Your task to perform on an android device: manage bookmarks in the chrome app Image 0: 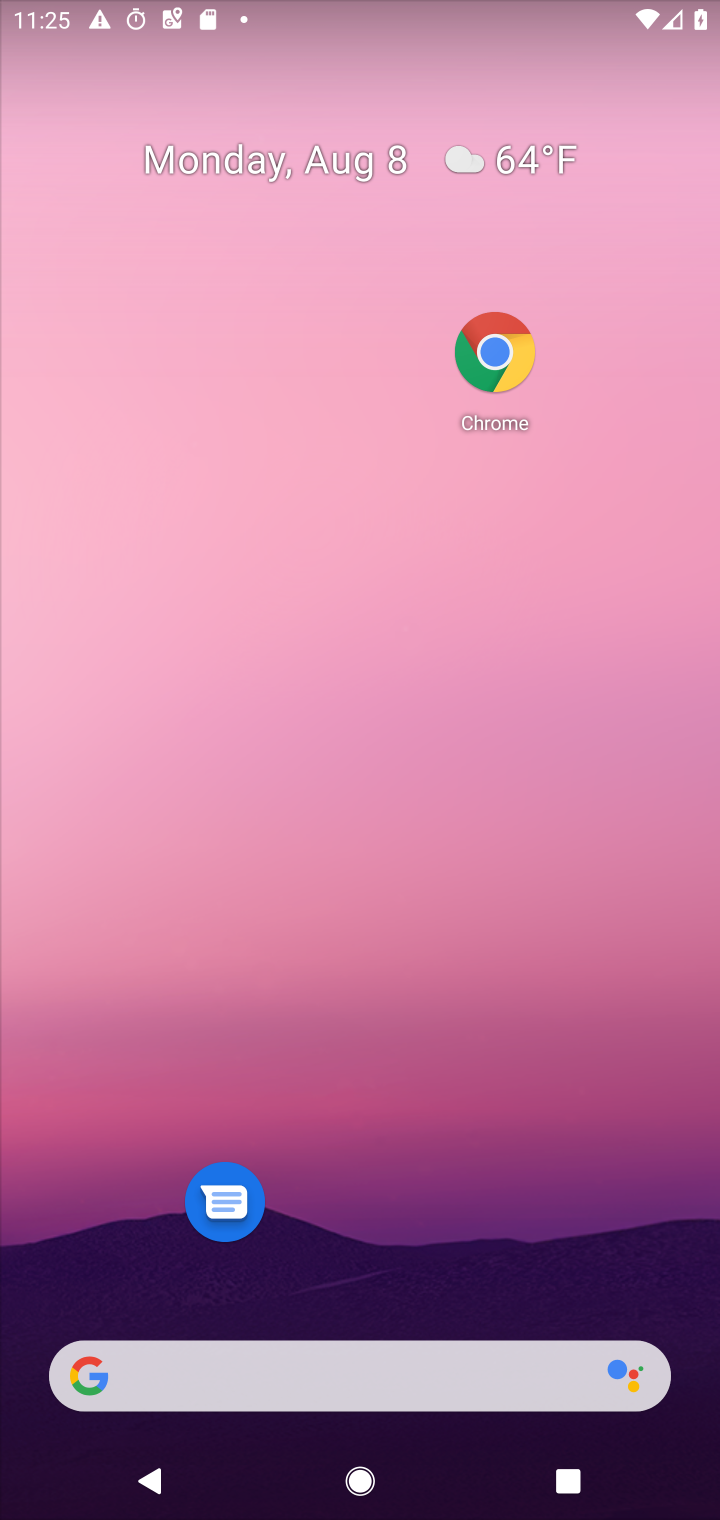
Step 0: press home button
Your task to perform on an android device: manage bookmarks in the chrome app Image 1: 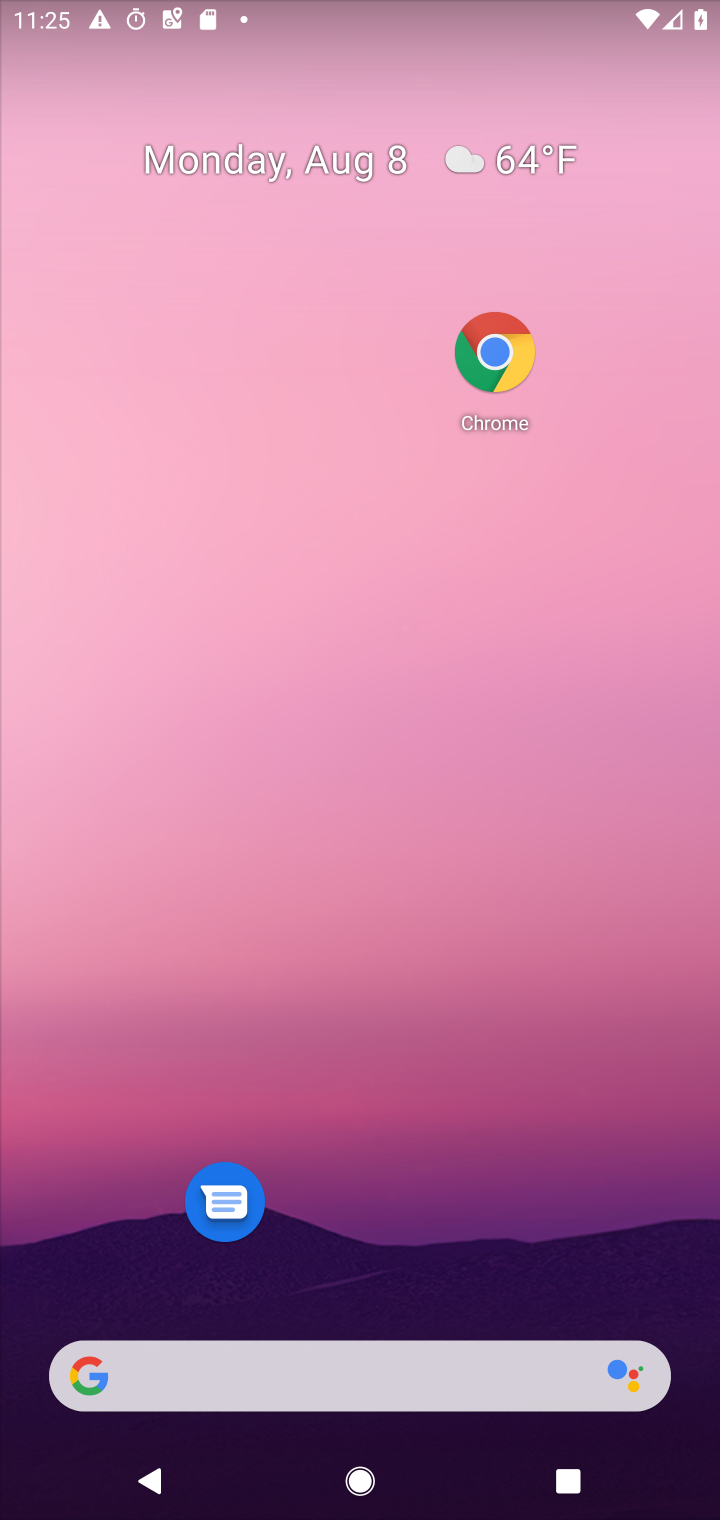
Step 1: drag from (437, 769) to (417, 336)
Your task to perform on an android device: manage bookmarks in the chrome app Image 2: 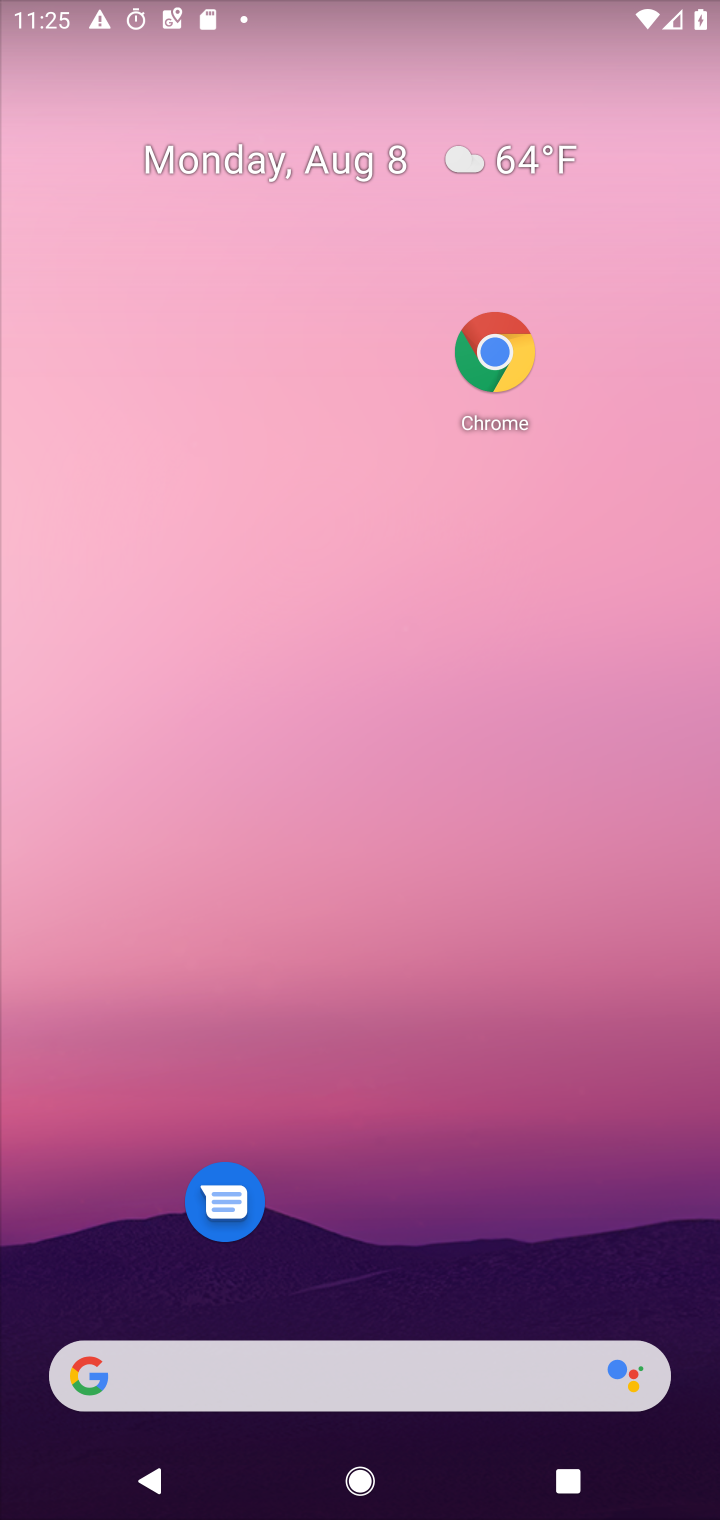
Step 2: click (505, 348)
Your task to perform on an android device: manage bookmarks in the chrome app Image 3: 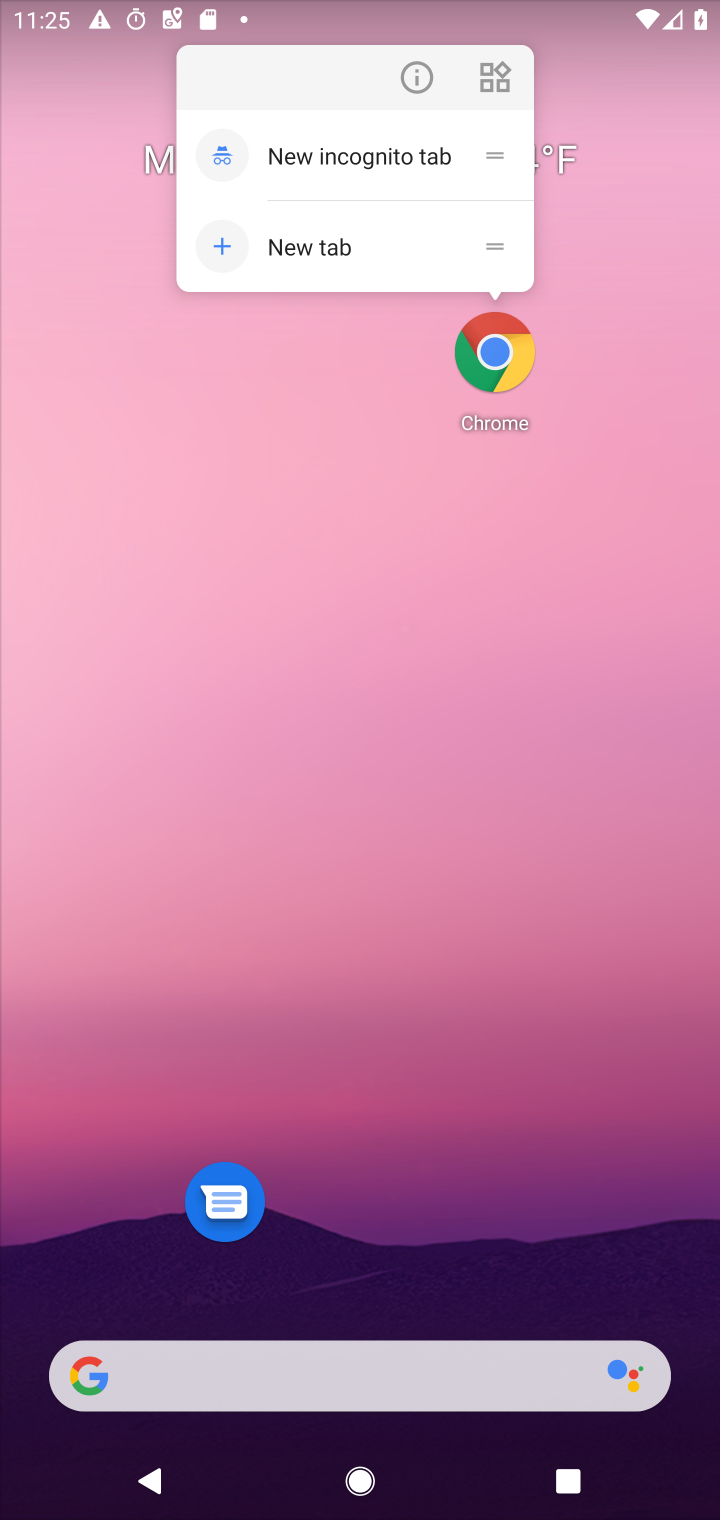
Step 3: click (509, 385)
Your task to perform on an android device: manage bookmarks in the chrome app Image 4: 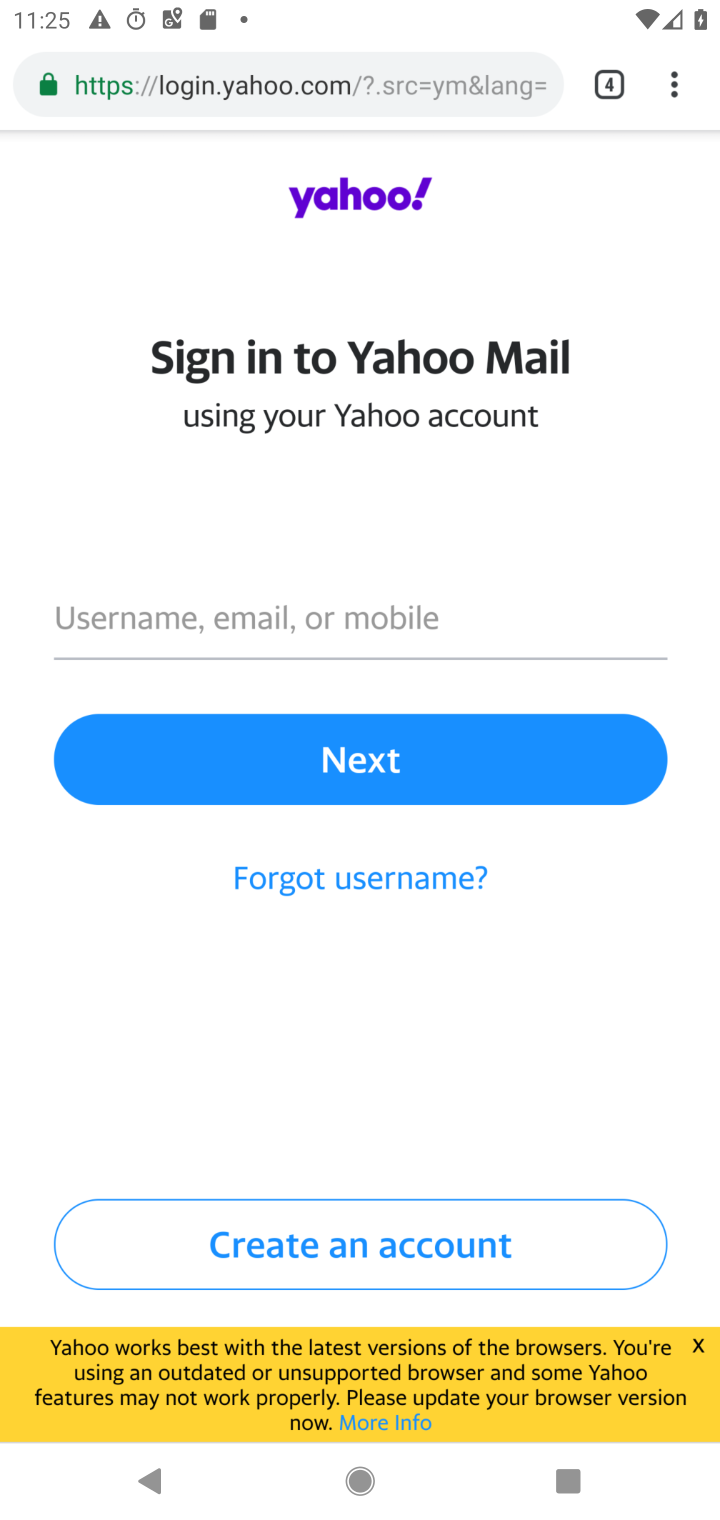
Step 4: click (503, 376)
Your task to perform on an android device: manage bookmarks in the chrome app Image 5: 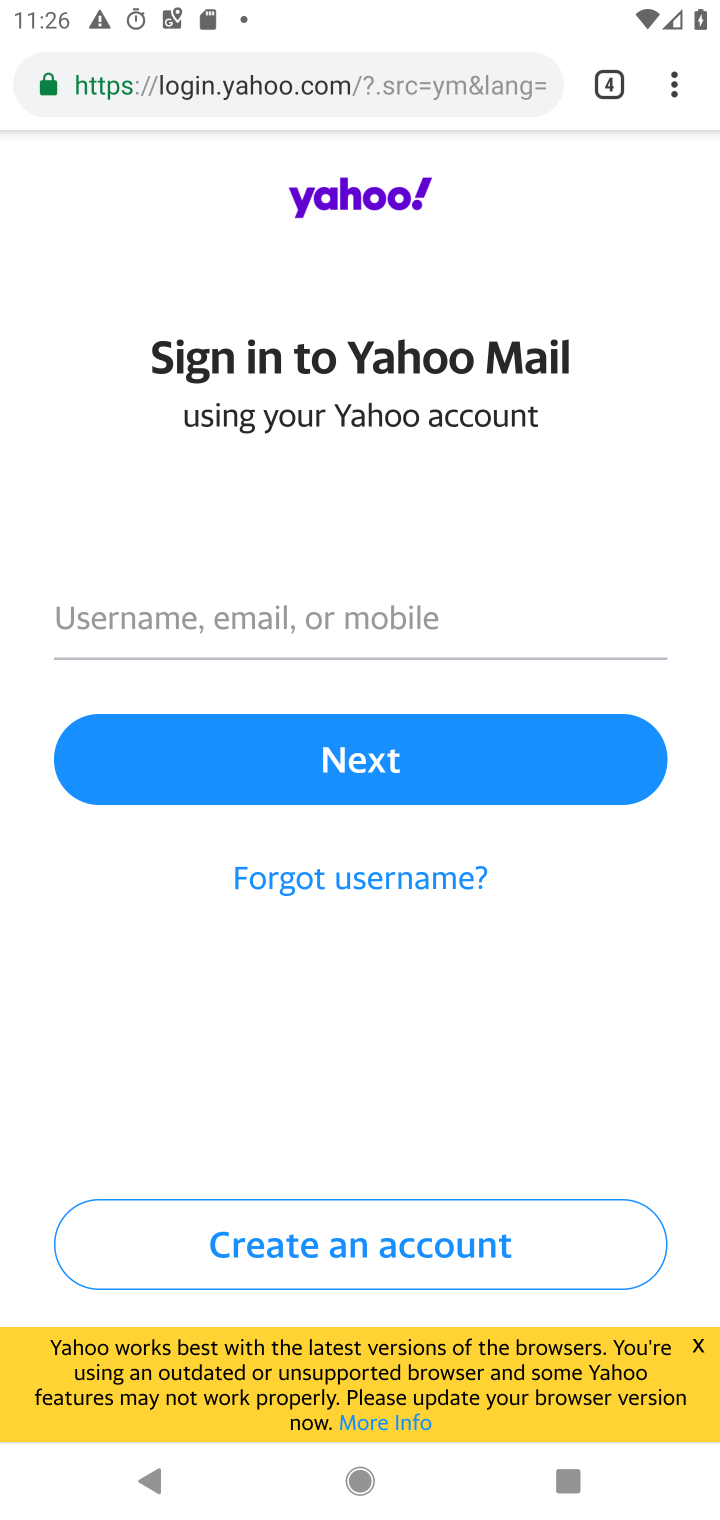
Step 5: click (666, 81)
Your task to perform on an android device: manage bookmarks in the chrome app Image 6: 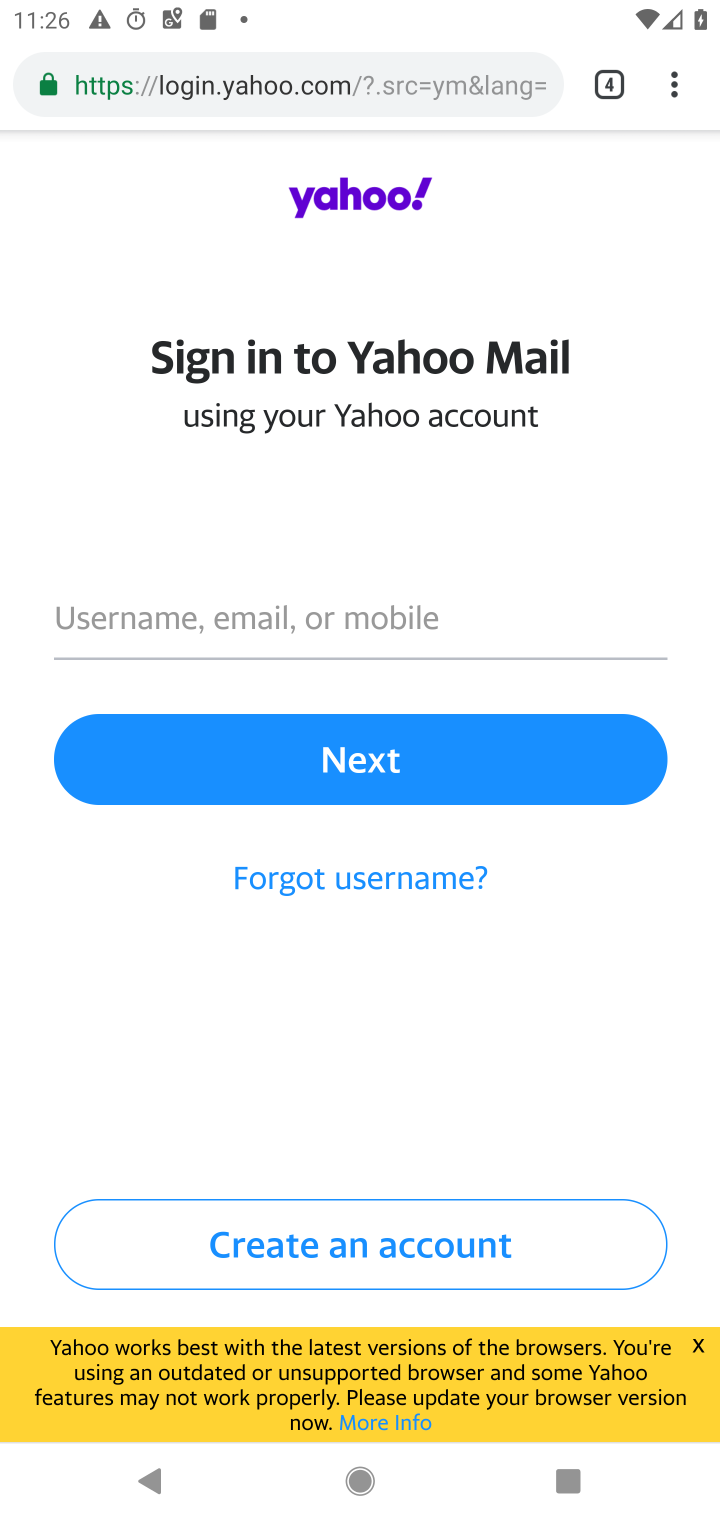
Step 6: click (673, 88)
Your task to perform on an android device: manage bookmarks in the chrome app Image 7: 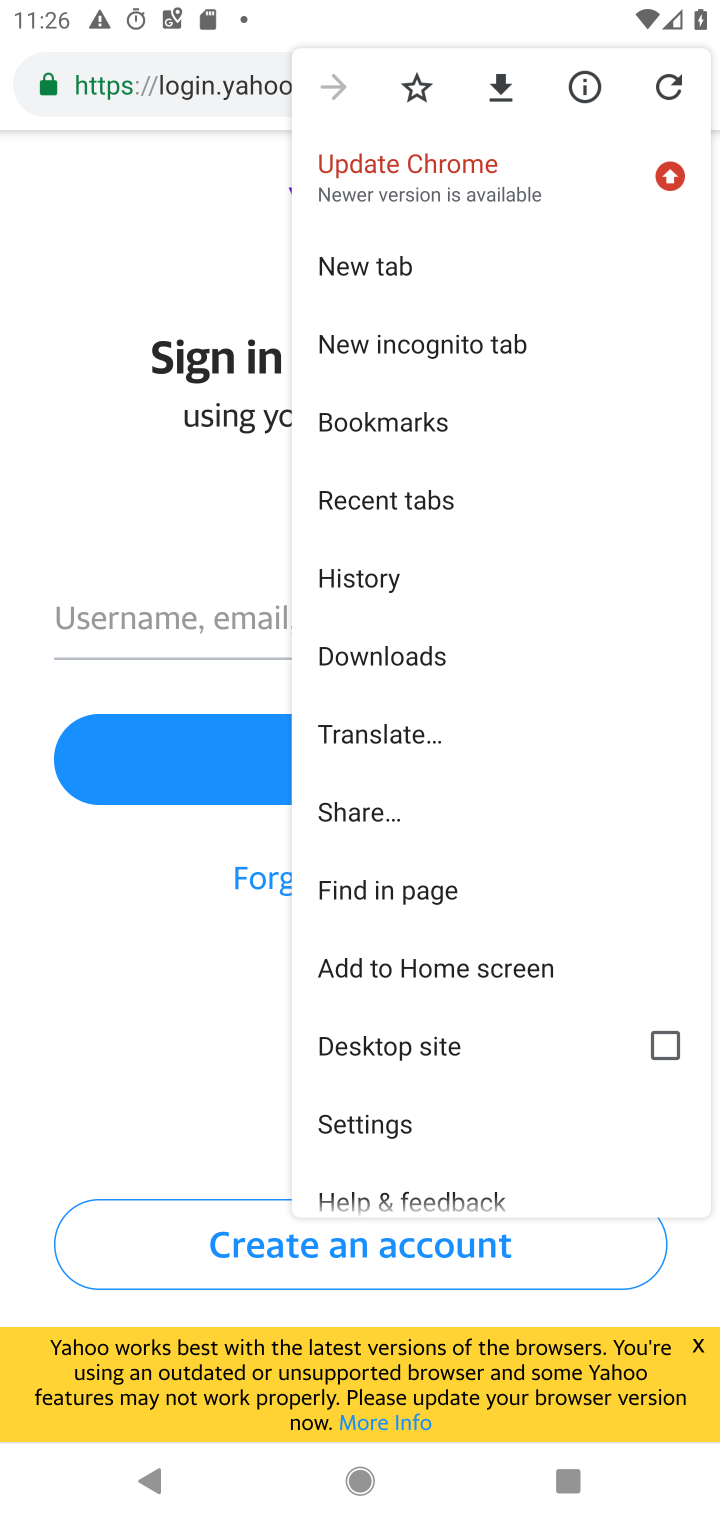
Step 7: click (375, 437)
Your task to perform on an android device: manage bookmarks in the chrome app Image 8: 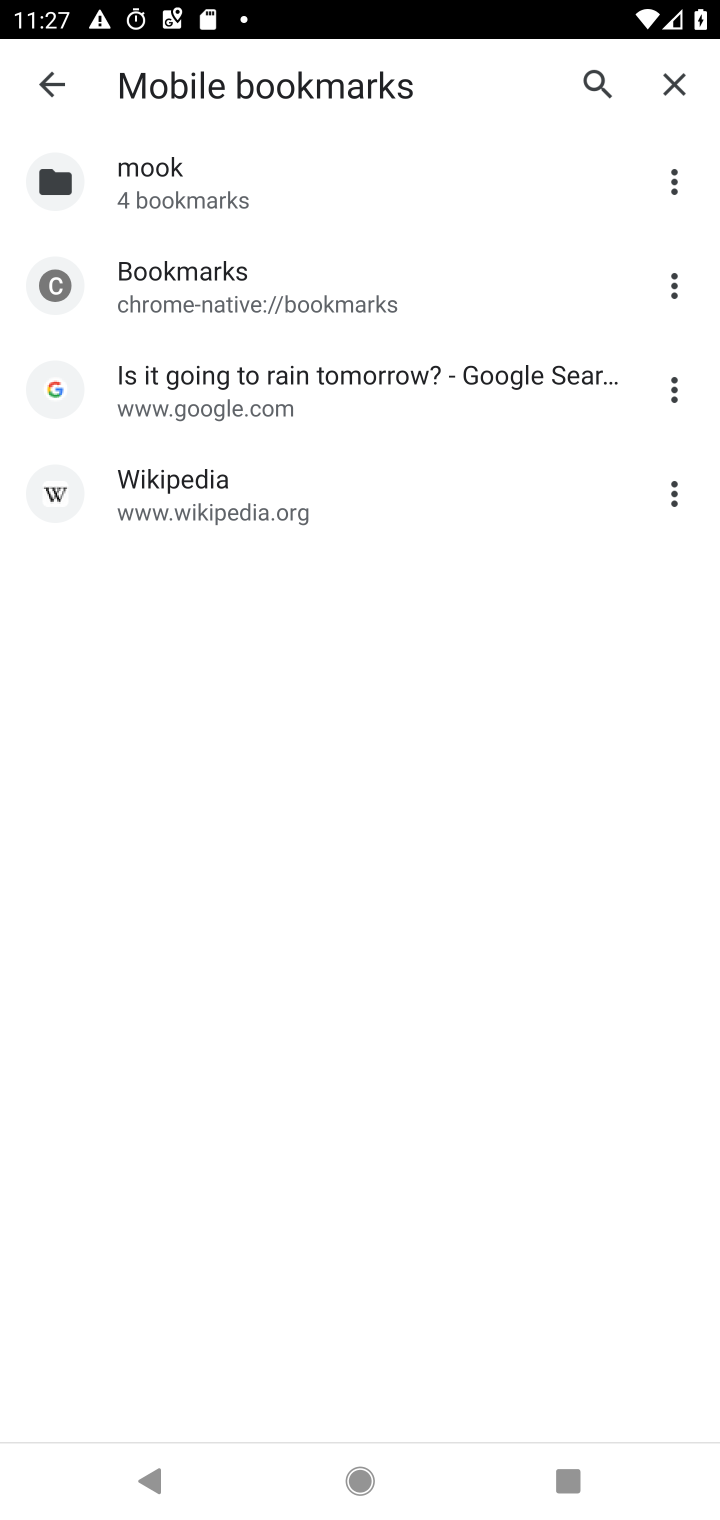
Step 8: task complete